Your task to perform on an android device: allow cookies in the chrome app Image 0: 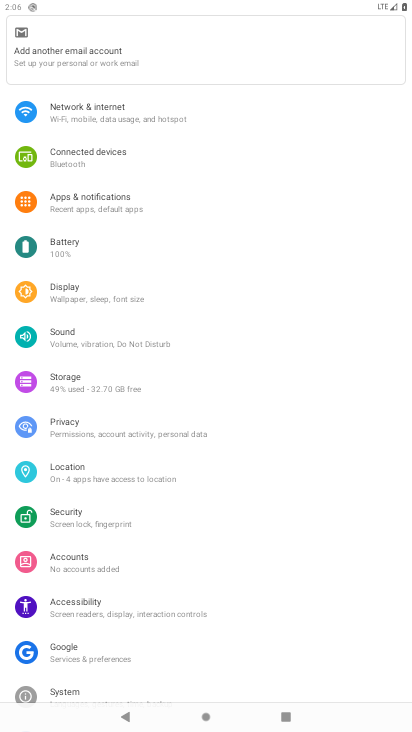
Step 0: press home button
Your task to perform on an android device: allow cookies in the chrome app Image 1: 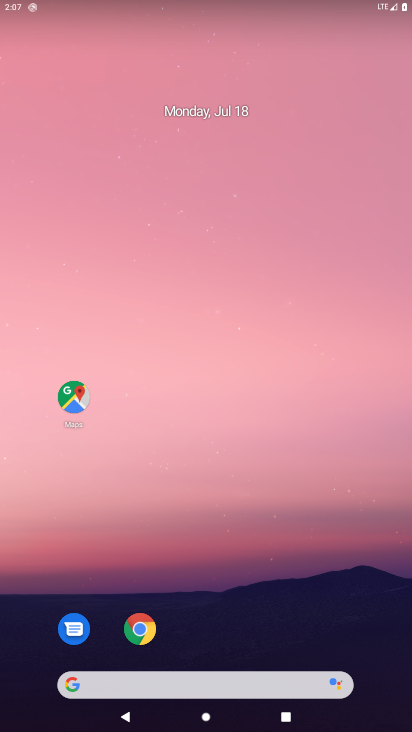
Step 1: click (137, 618)
Your task to perform on an android device: allow cookies in the chrome app Image 2: 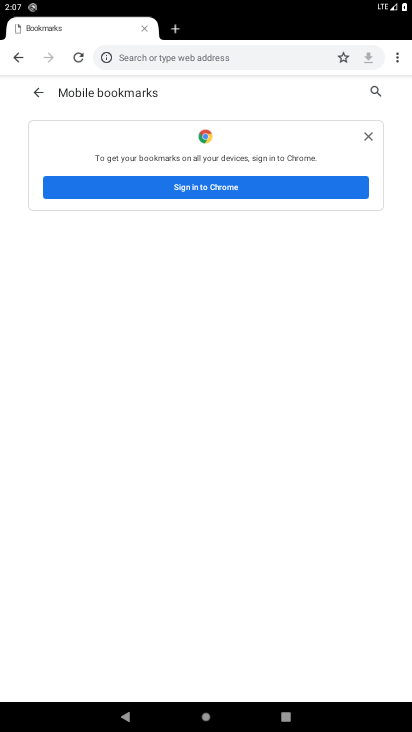
Step 2: click (396, 57)
Your task to perform on an android device: allow cookies in the chrome app Image 3: 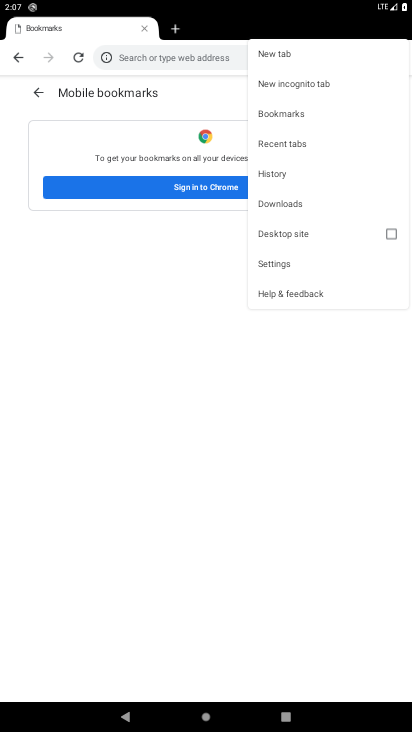
Step 3: click (293, 266)
Your task to perform on an android device: allow cookies in the chrome app Image 4: 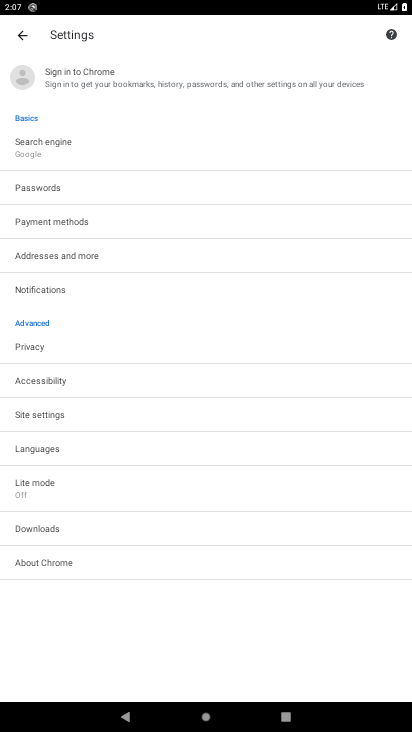
Step 4: click (52, 414)
Your task to perform on an android device: allow cookies in the chrome app Image 5: 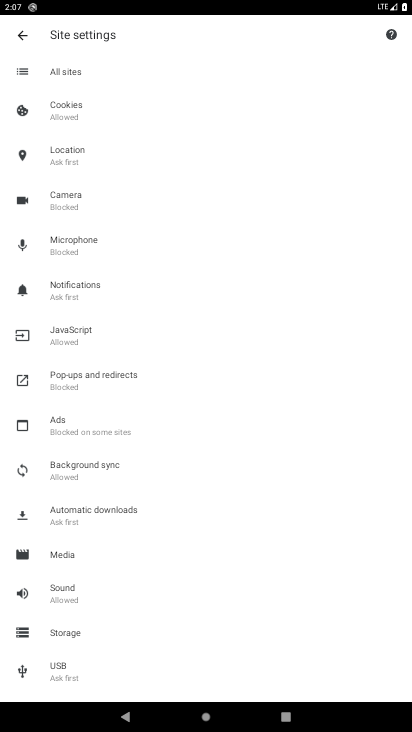
Step 5: click (98, 120)
Your task to perform on an android device: allow cookies in the chrome app Image 6: 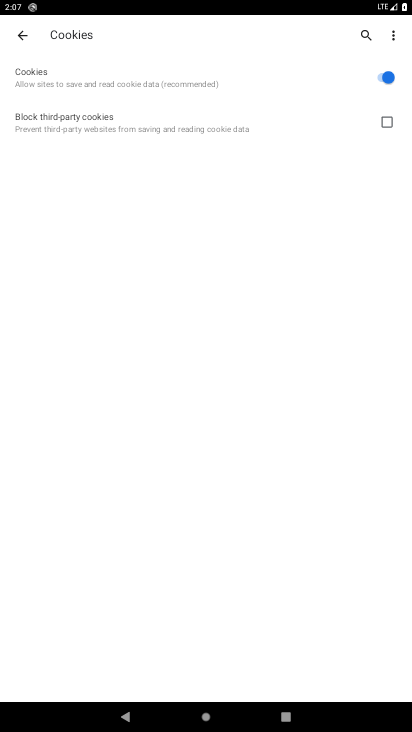
Step 6: task complete